Your task to perform on an android device: Turn off the flashlight Image 0: 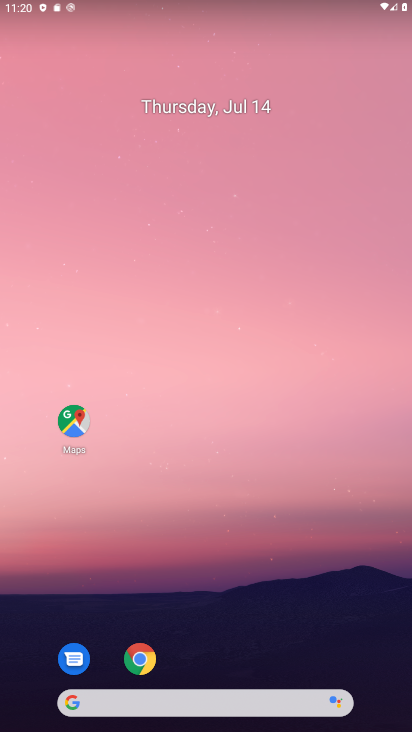
Step 0: click (216, 244)
Your task to perform on an android device: Turn off the flashlight Image 1: 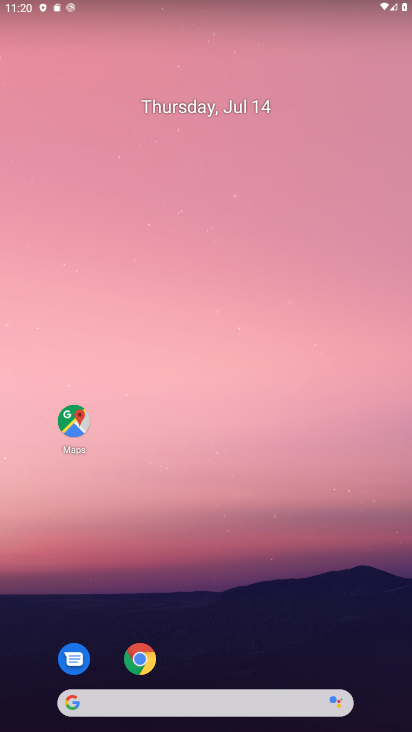
Step 1: drag from (218, 646) to (225, 254)
Your task to perform on an android device: Turn off the flashlight Image 2: 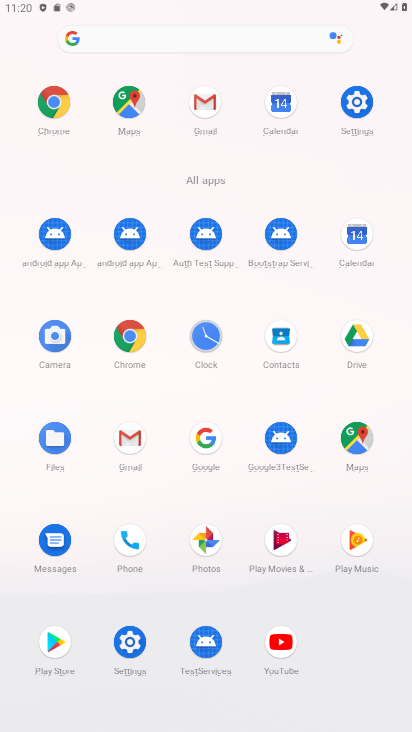
Step 2: click (347, 93)
Your task to perform on an android device: Turn off the flashlight Image 3: 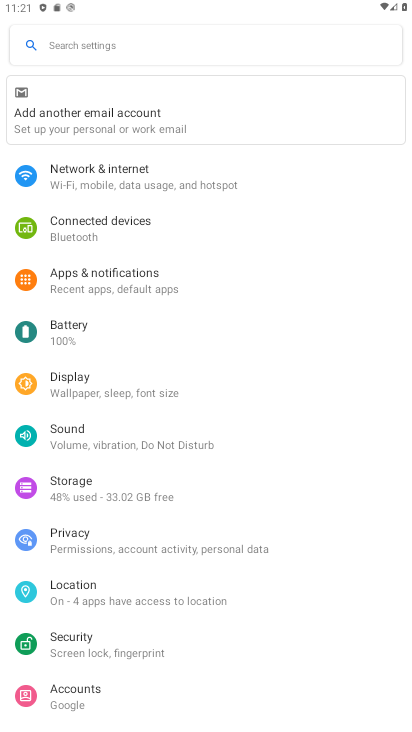
Step 3: task complete